Your task to perform on an android device: change your default location settings in chrome Image 0: 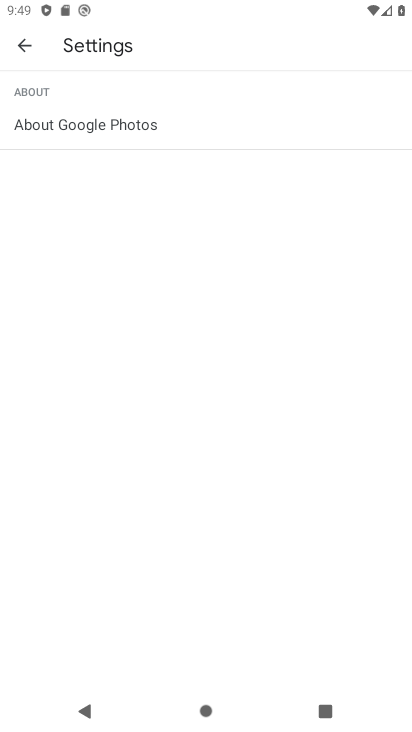
Step 0: press home button
Your task to perform on an android device: change your default location settings in chrome Image 1: 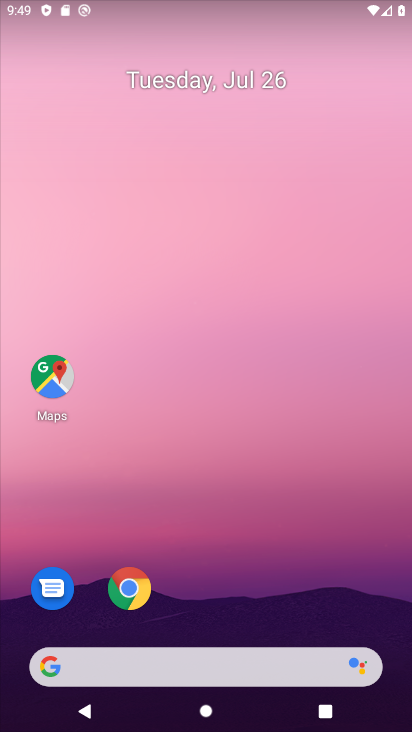
Step 1: drag from (226, 611) to (250, 134)
Your task to perform on an android device: change your default location settings in chrome Image 2: 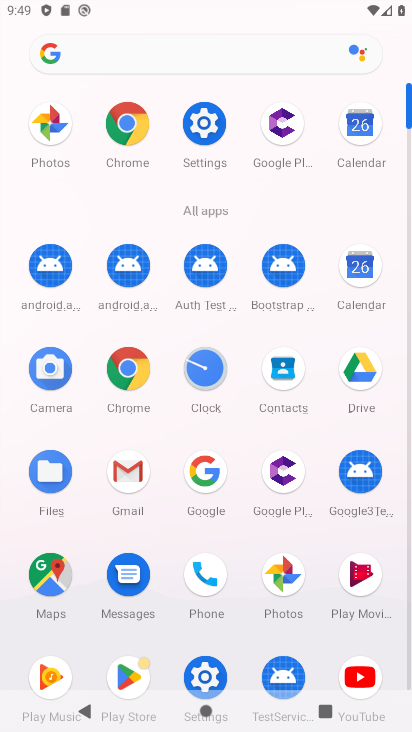
Step 2: click (135, 125)
Your task to perform on an android device: change your default location settings in chrome Image 3: 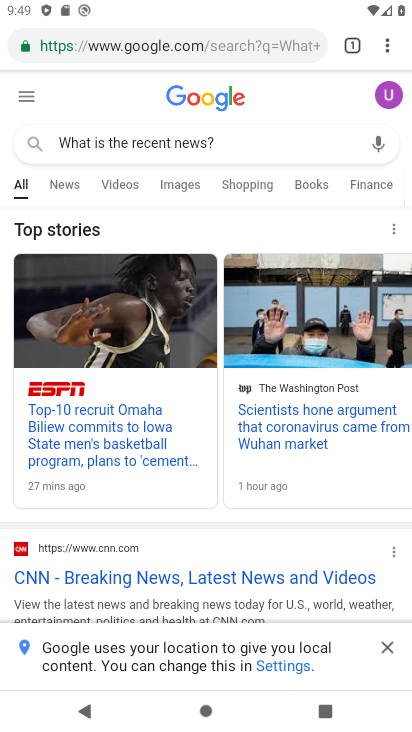
Step 3: click (384, 50)
Your task to perform on an android device: change your default location settings in chrome Image 4: 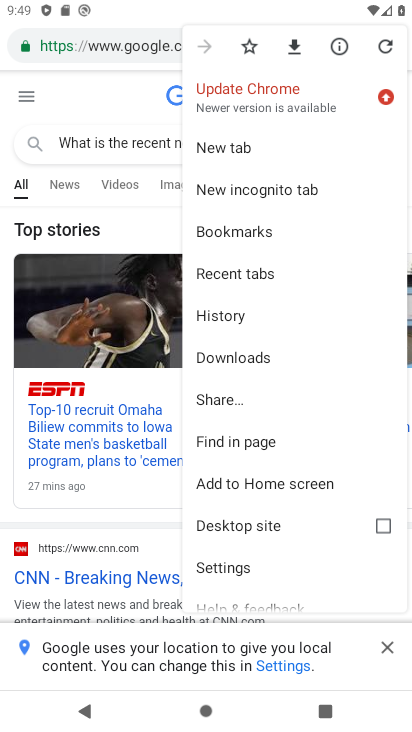
Step 4: click (240, 571)
Your task to perform on an android device: change your default location settings in chrome Image 5: 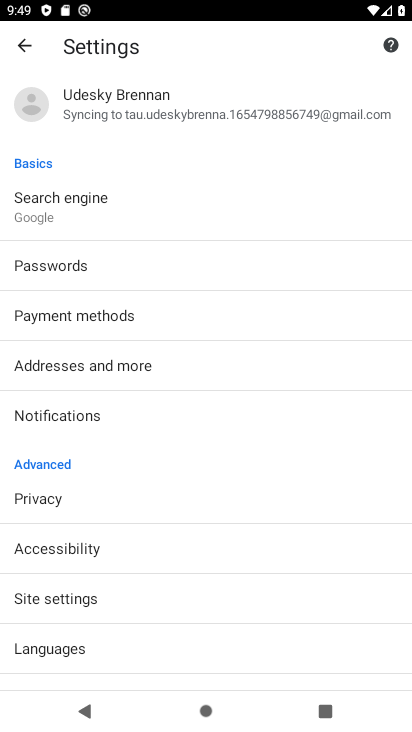
Step 5: click (145, 608)
Your task to perform on an android device: change your default location settings in chrome Image 6: 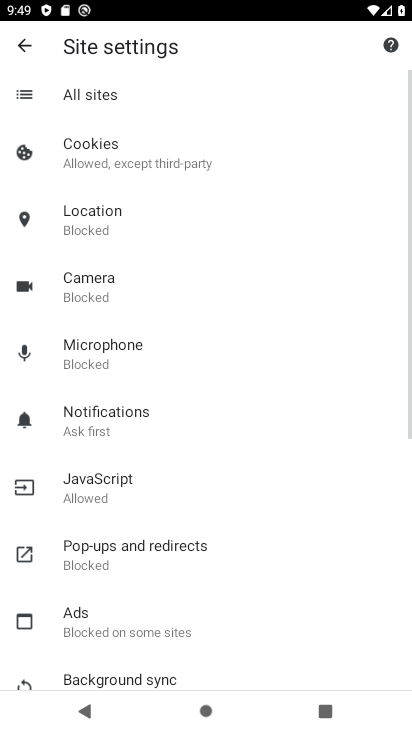
Step 6: click (191, 227)
Your task to perform on an android device: change your default location settings in chrome Image 7: 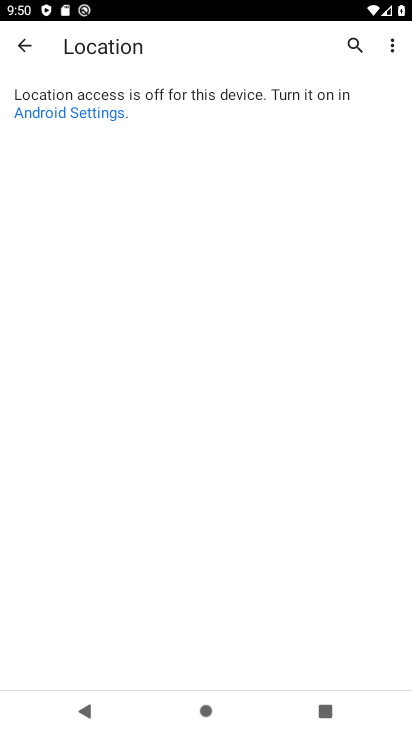
Step 7: task complete